Your task to perform on an android device: turn on showing notifications on the lock screen Image 0: 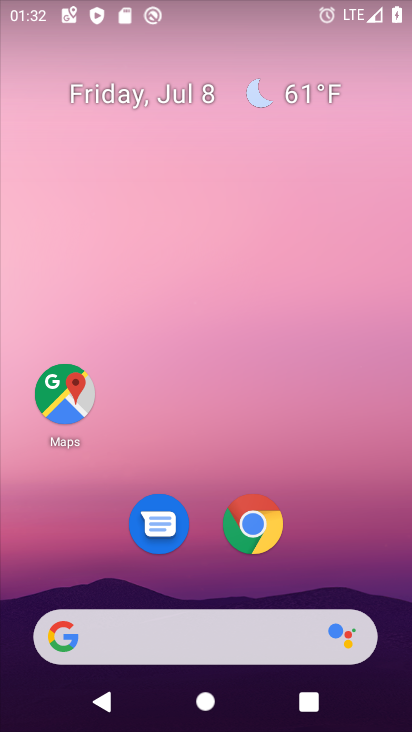
Step 0: drag from (262, 443) to (298, 2)
Your task to perform on an android device: turn on showing notifications on the lock screen Image 1: 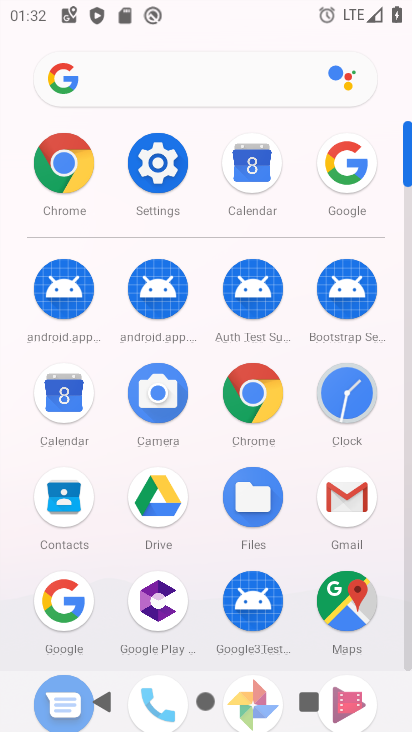
Step 1: click (173, 169)
Your task to perform on an android device: turn on showing notifications on the lock screen Image 2: 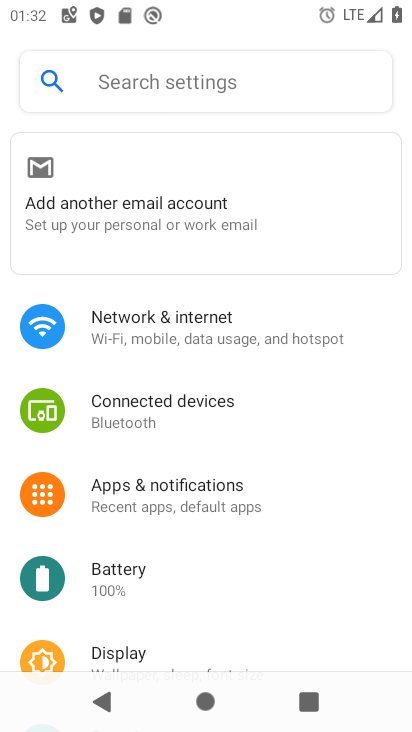
Step 2: click (233, 499)
Your task to perform on an android device: turn on showing notifications on the lock screen Image 3: 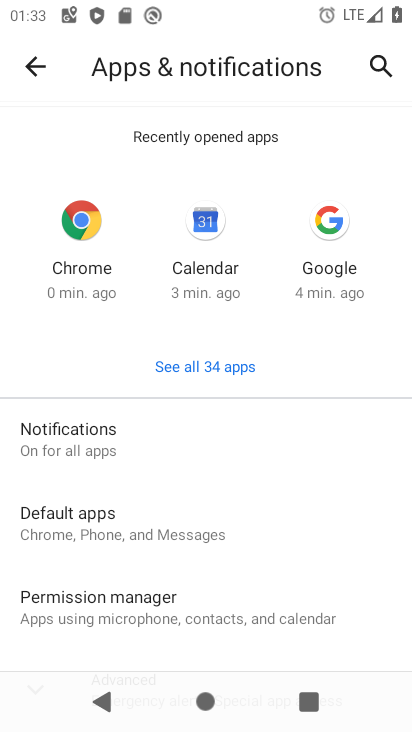
Step 3: click (113, 442)
Your task to perform on an android device: turn on showing notifications on the lock screen Image 4: 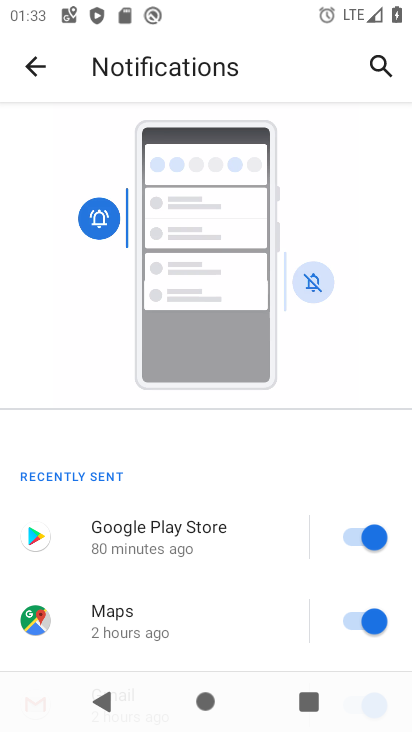
Step 4: drag from (219, 581) to (255, 294)
Your task to perform on an android device: turn on showing notifications on the lock screen Image 5: 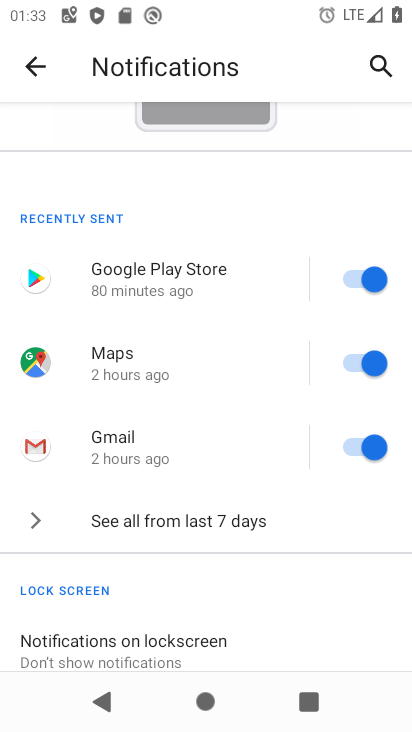
Step 5: click (198, 636)
Your task to perform on an android device: turn on showing notifications on the lock screen Image 6: 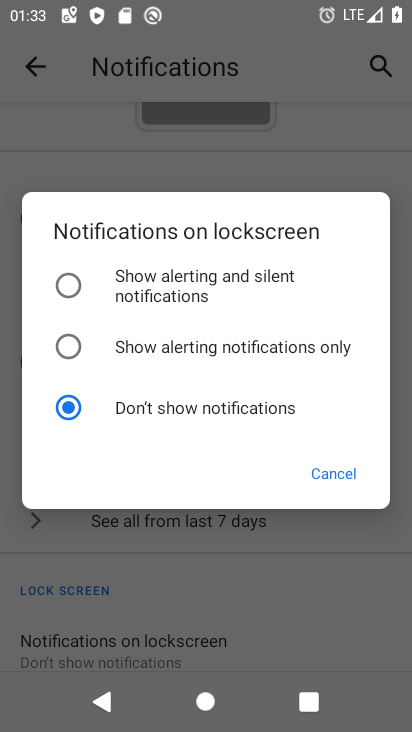
Step 6: click (69, 283)
Your task to perform on an android device: turn on showing notifications on the lock screen Image 7: 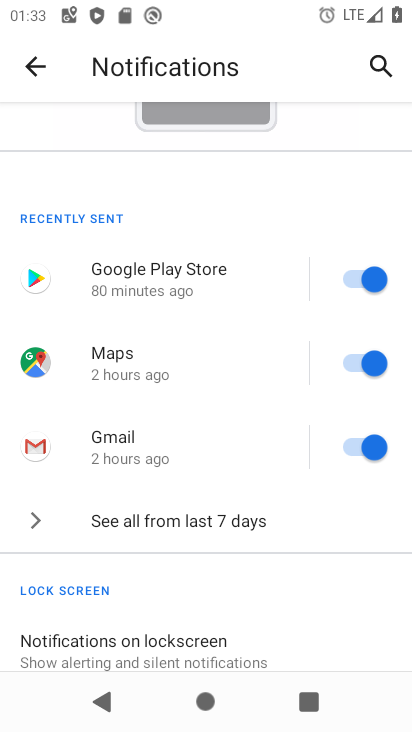
Step 7: task complete